Your task to perform on an android device: Add "sony triple a" to the cart on ebay Image 0: 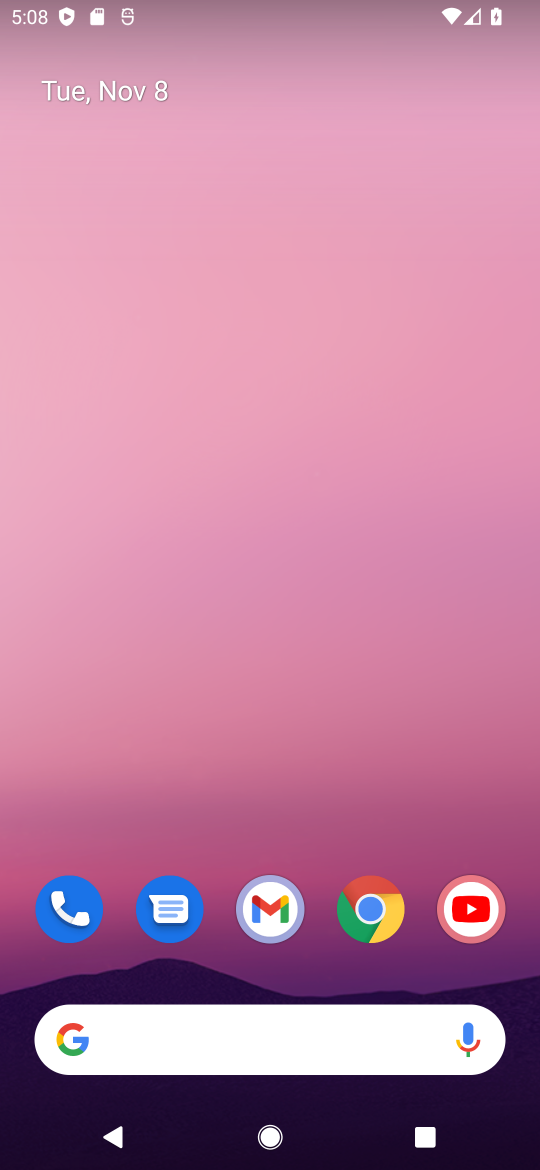
Step 0: click (369, 880)
Your task to perform on an android device: Add "sony triple a" to the cart on ebay Image 1: 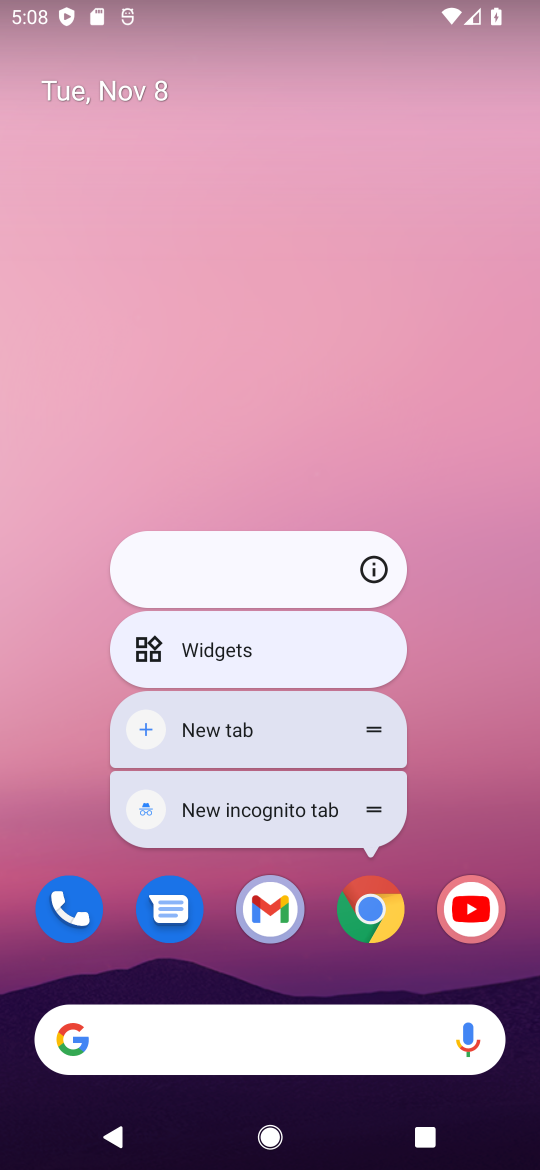
Step 1: click (358, 905)
Your task to perform on an android device: Add "sony triple a" to the cart on ebay Image 2: 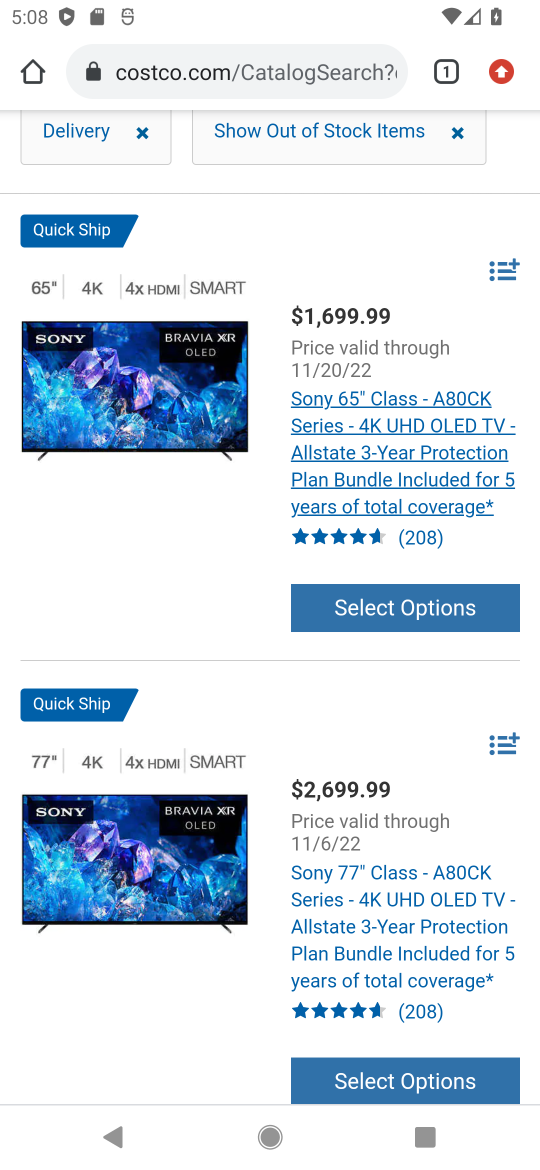
Step 2: click (312, 67)
Your task to perform on an android device: Add "sony triple a" to the cart on ebay Image 3: 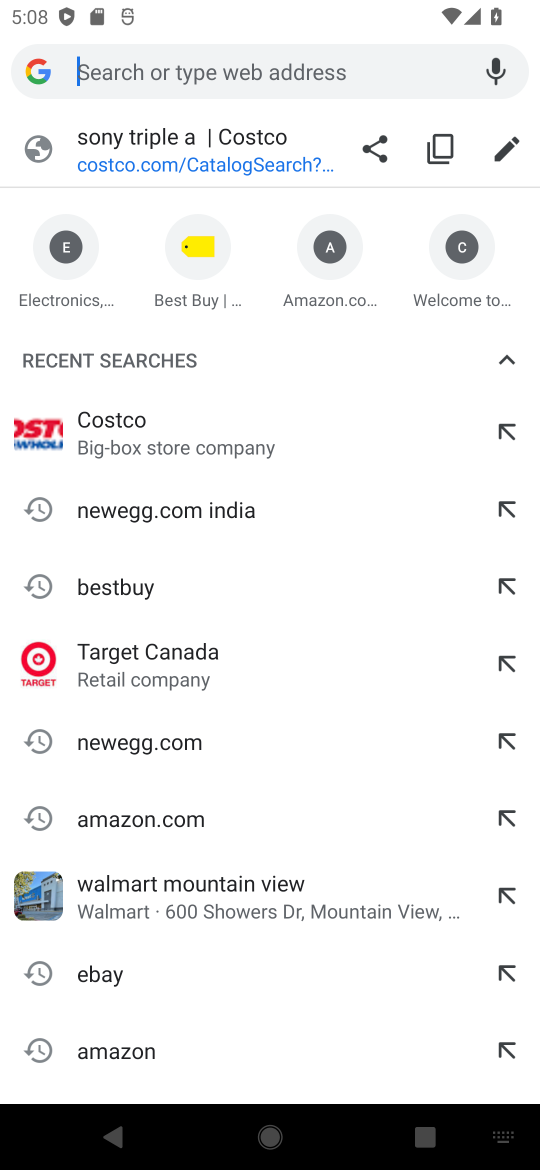
Step 3: click (88, 972)
Your task to perform on an android device: Add "sony triple a" to the cart on ebay Image 4: 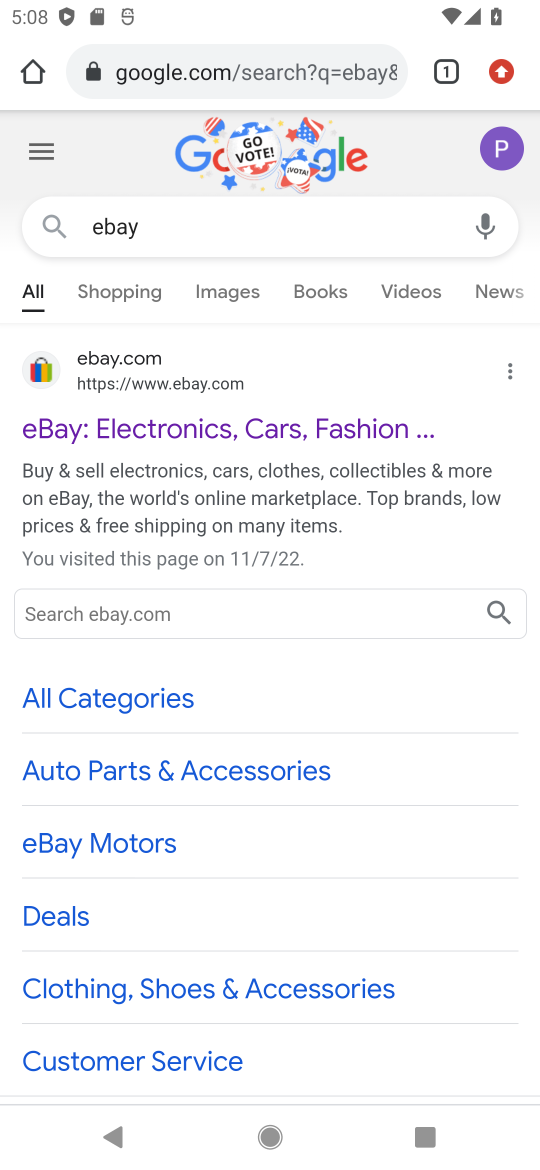
Step 4: click (224, 412)
Your task to perform on an android device: Add "sony triple a" to the cart on ebay Image 5: 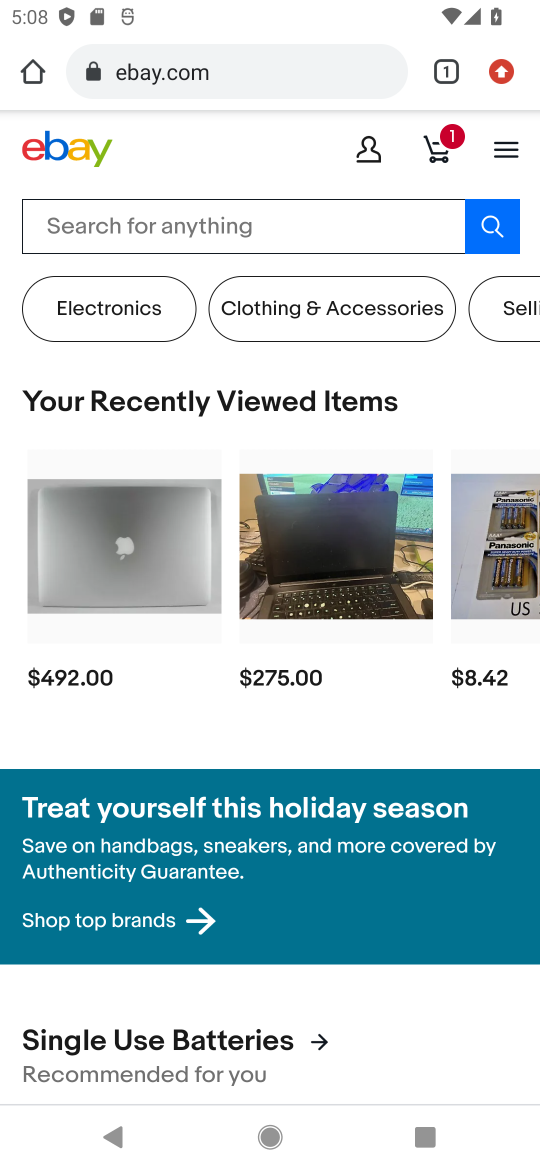
Step 5: click (125, 230)
Your task to perform on an android device: Add "sony triple a" to the cart on ebay Image 6: 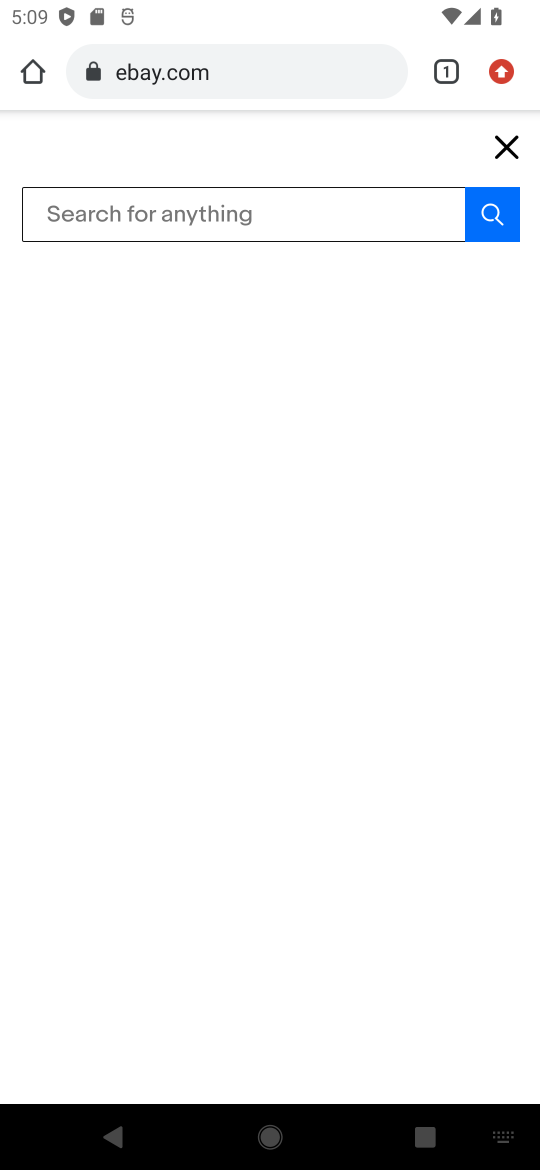
Step 6: type "sony triple a"
Your task to perform on an android device: Add "sony triple a" to the cart on ebay Image 7: 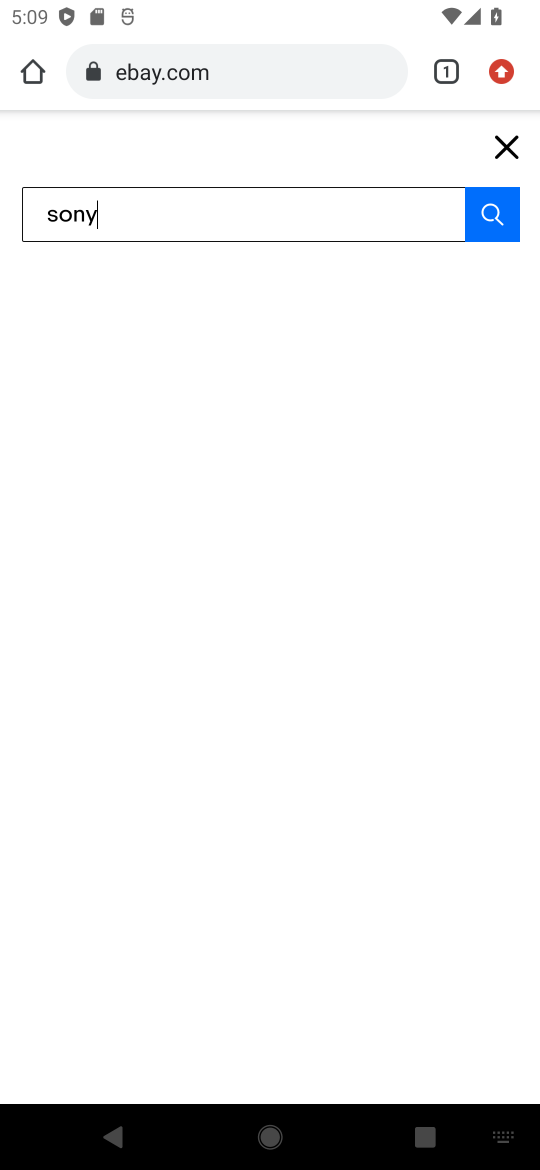
Step 7: press enter
Your task to perform on an android device: Add "sony triple a" to the cart on ebay Image 8: 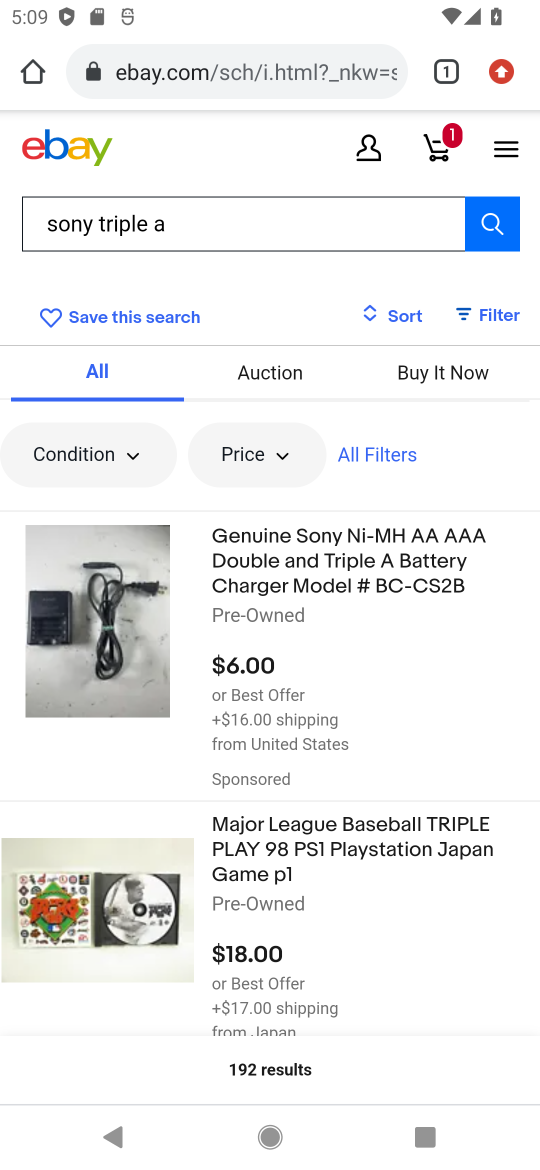
Step 8: task complete